Your task to perform on an android device: Open maps Image 0: 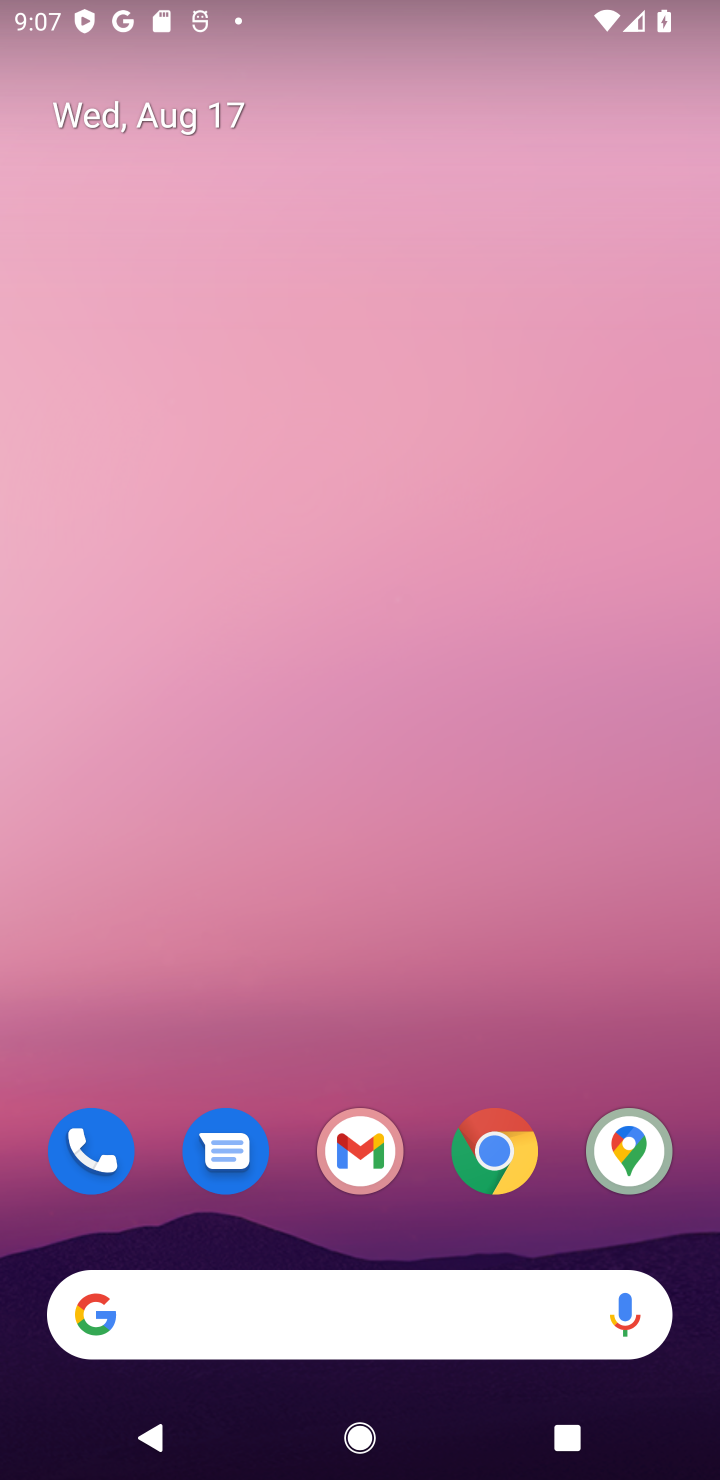
Step 0: click (619, 1157)
Your task to perform on an android device: Open maps Image 1: 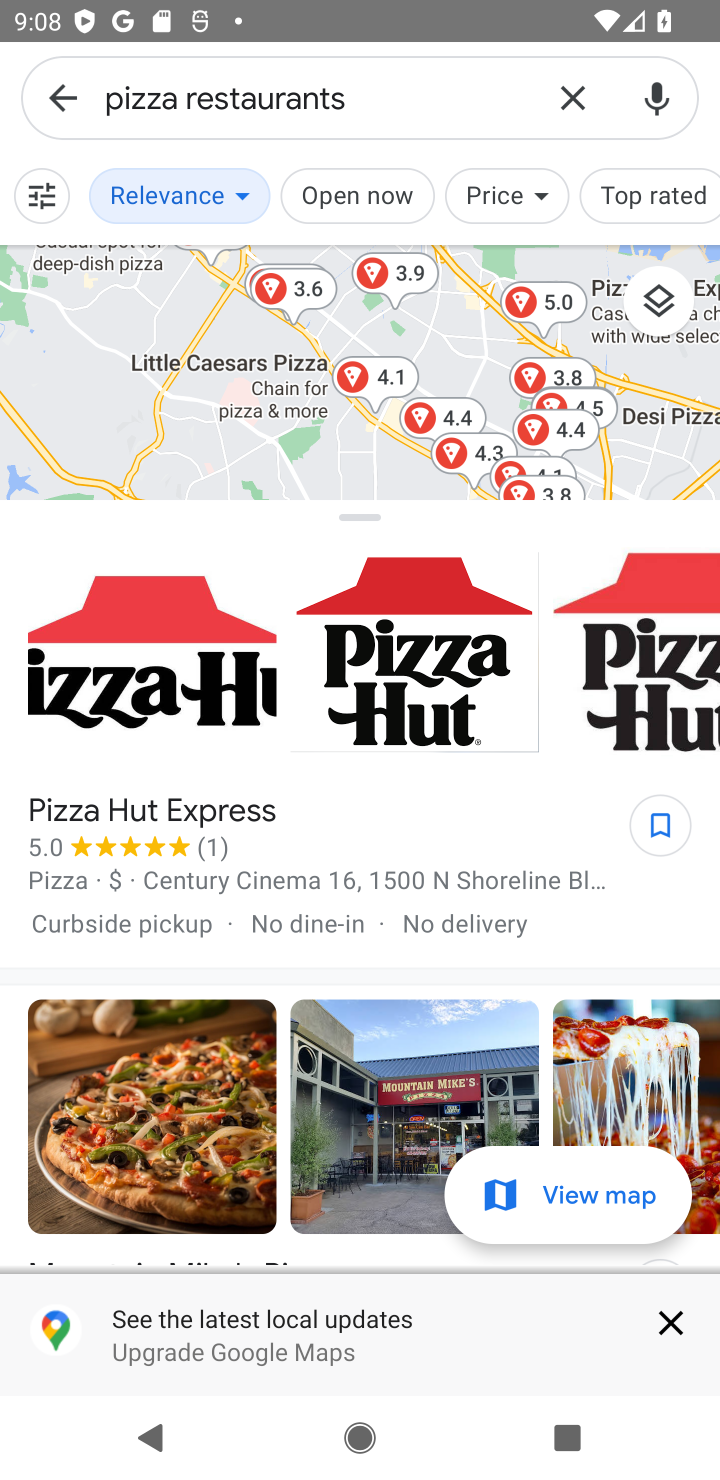
Step 1: task complete